Your task to perform on an android device: Empty the shopping cart on ebay. Image 0: 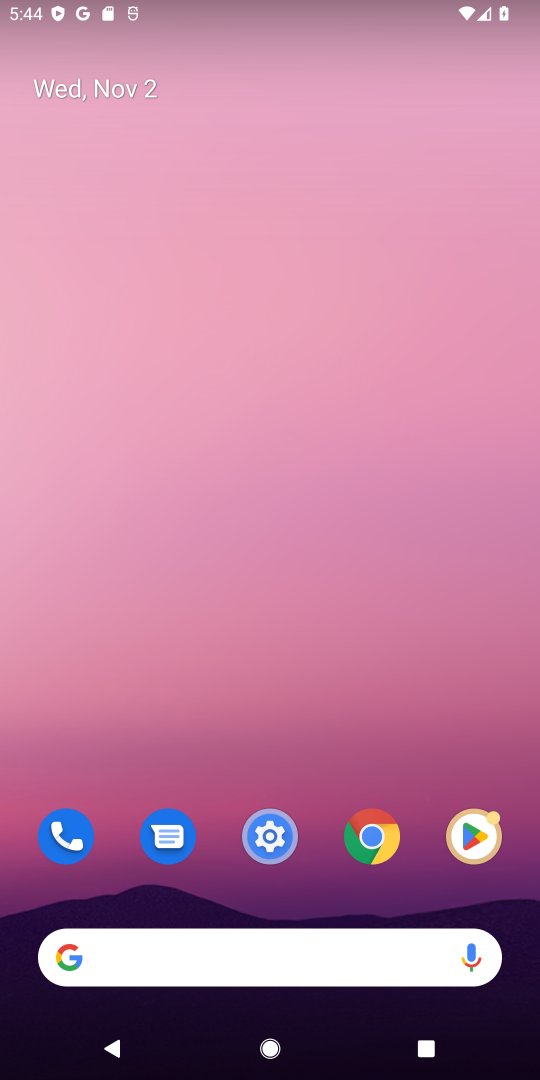
Step 0: drag from (142, 974) to (199, 268)
Your task to perform on an android device: Empty the shopping cart on ebay. Image 1: 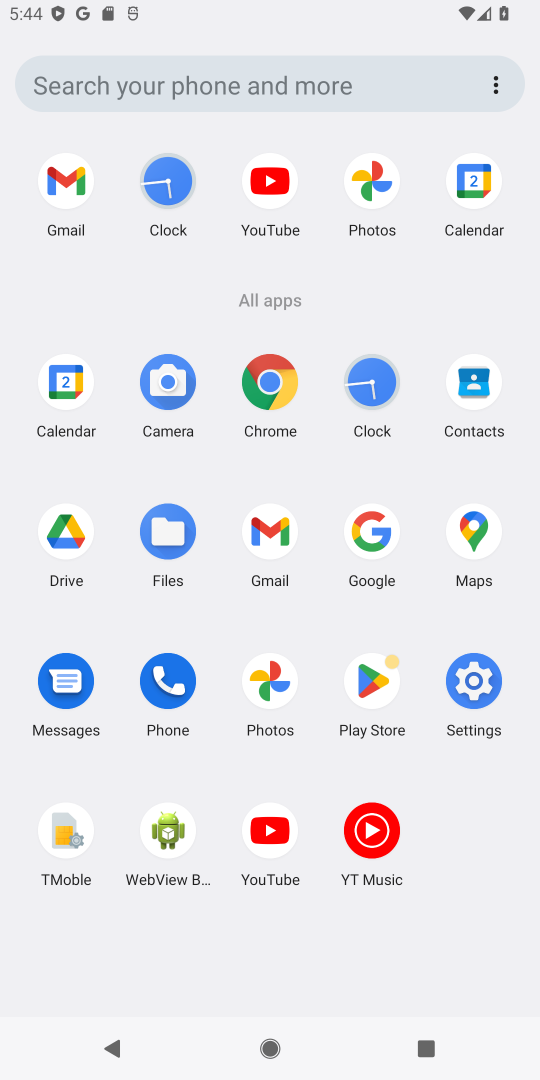
Step 1: click (363, 536)
Your task to perform on an android device: Empty the shopping cart on ebay. Image 2: 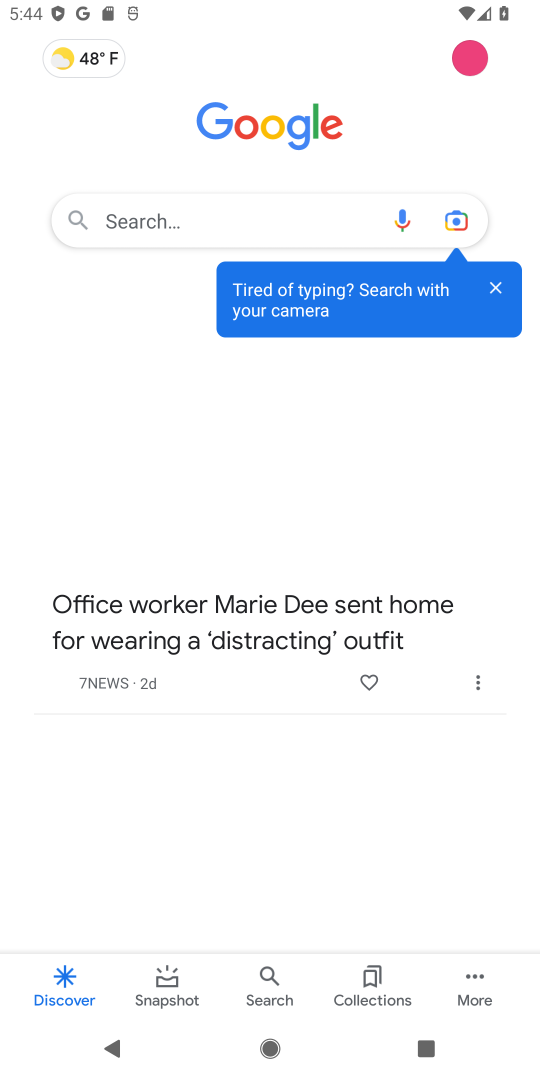
Step 2: click (181, 227)
Your task to perform on an android device: Empty the shopping cart on ebay. Image 3: 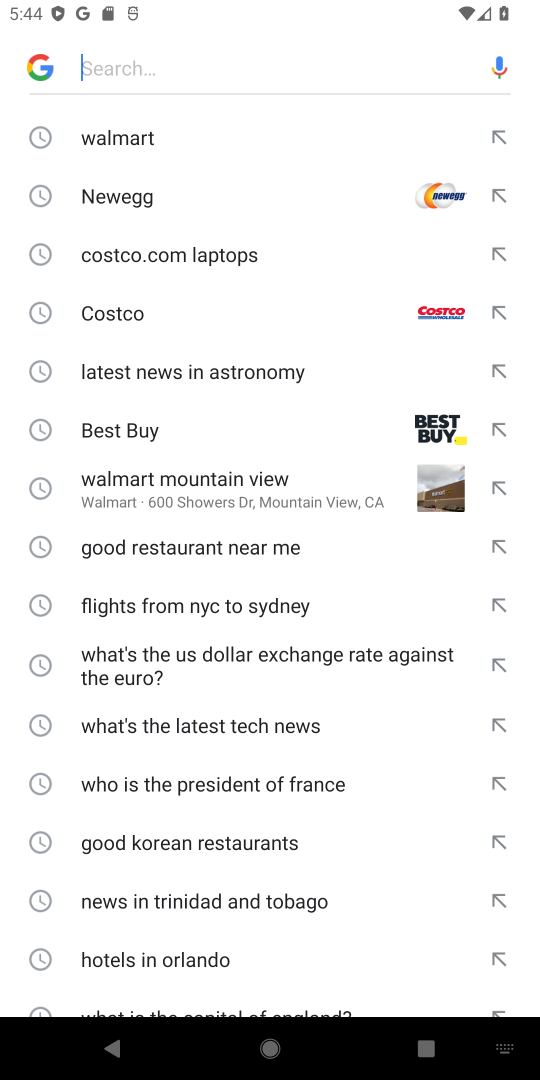
Step 3: click (132, 75)
Your task to perform on an android device: Empty the shopping cart on ebay. Image 4: 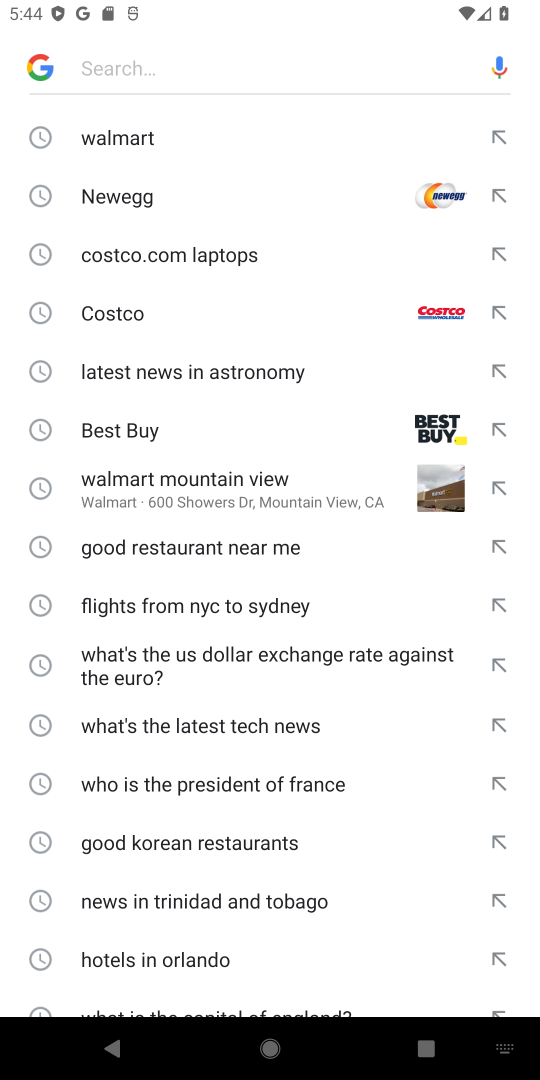
Step 4: type "ebay"
Your task to perform on an android device: Empty the shopping cart on ebay. Image 5: 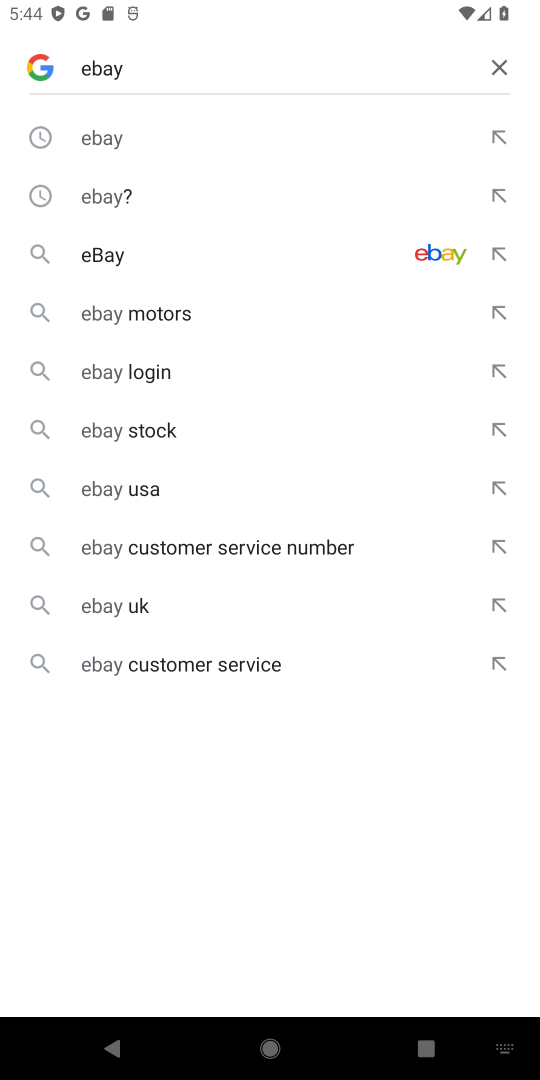
Step 5: click (110, 251)
Your task to perform on an android device: Empty the shopping cart on ebay. Image 6: 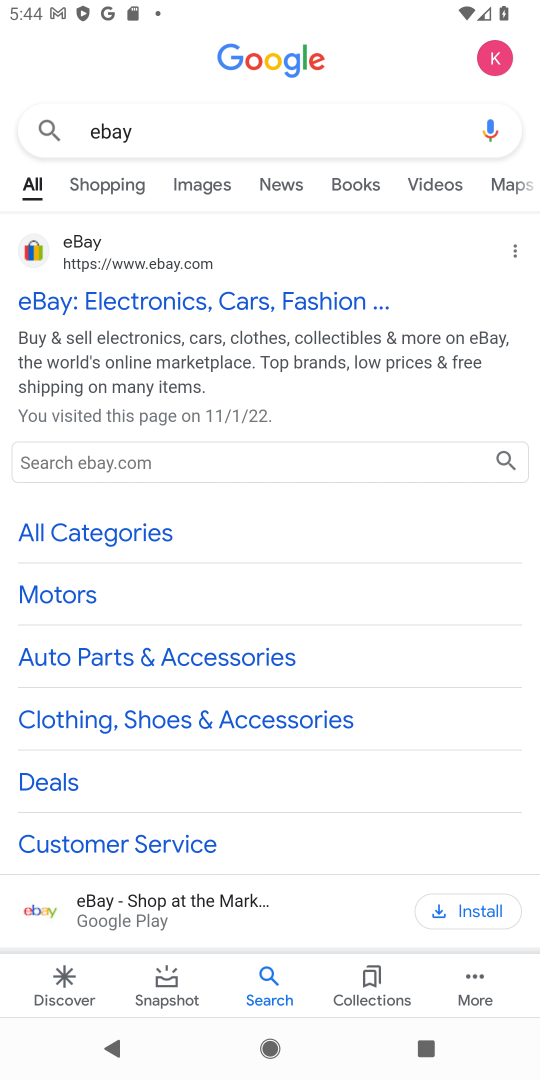
Step 6: click (143, 306)
Your task to perform on an android device: Empty the shopping cart on ebay. Image 7: 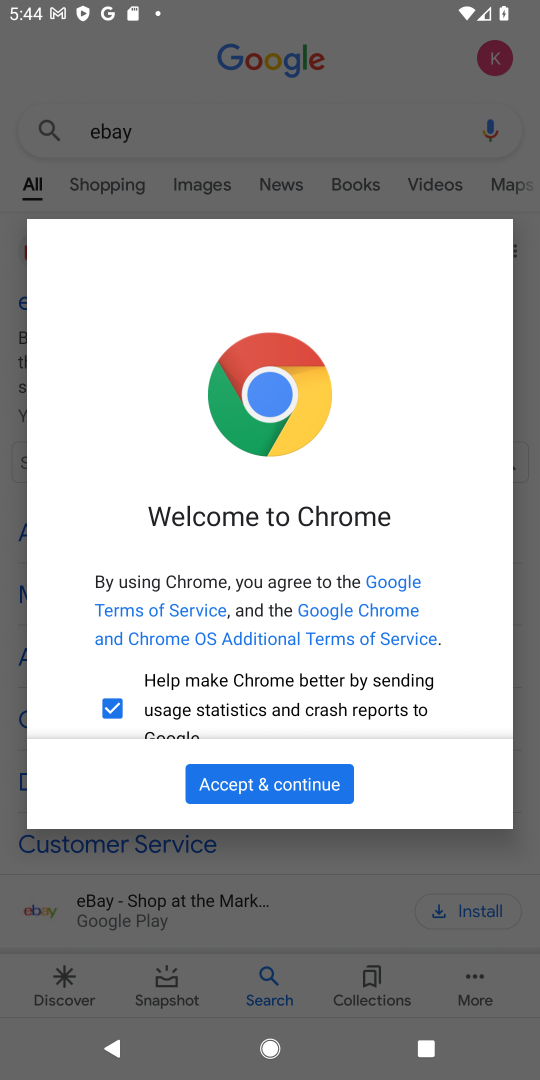
Step 7: click (239, 789)
Your task to perform on an android device: Empty the shopping cart on ebay. Image 8: 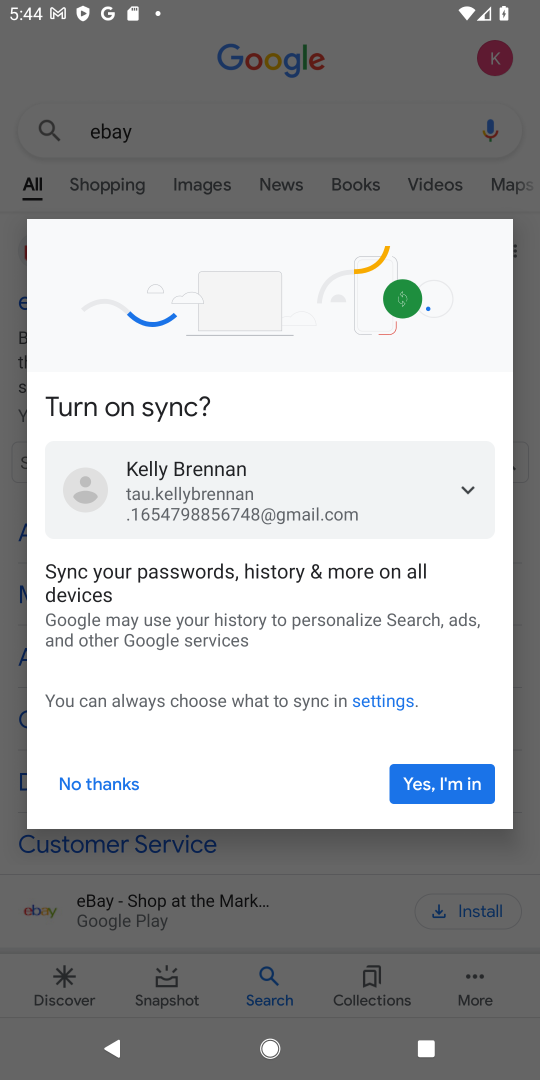
Step 8: click (446, 783)
Your task to perform on an android device: Empty the shopping cart on ebay. Image 9: 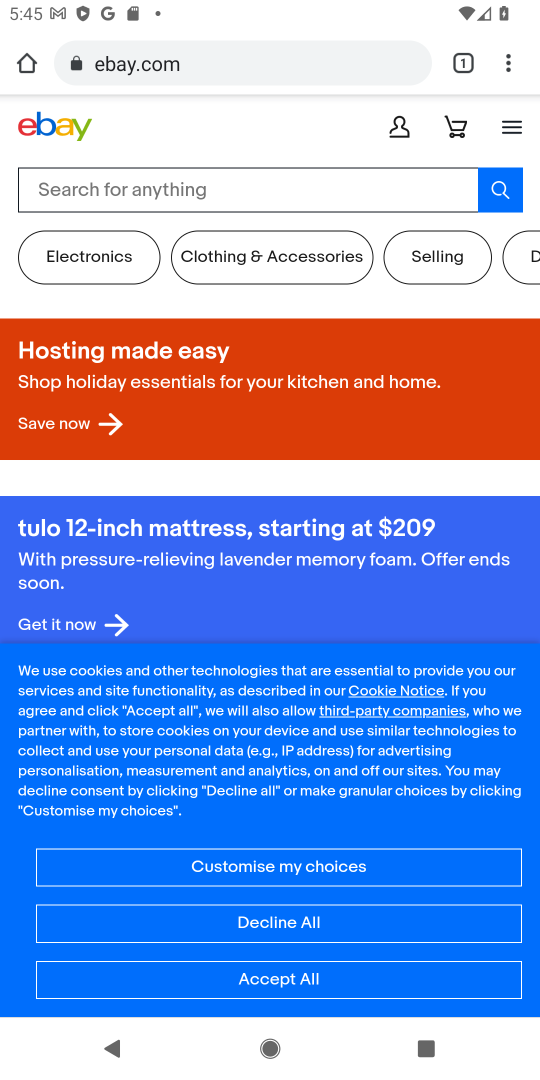
Step 9: click (456, 134)
Your task to perform on an android device: Empty the shopping cart on ebay. Image 10: 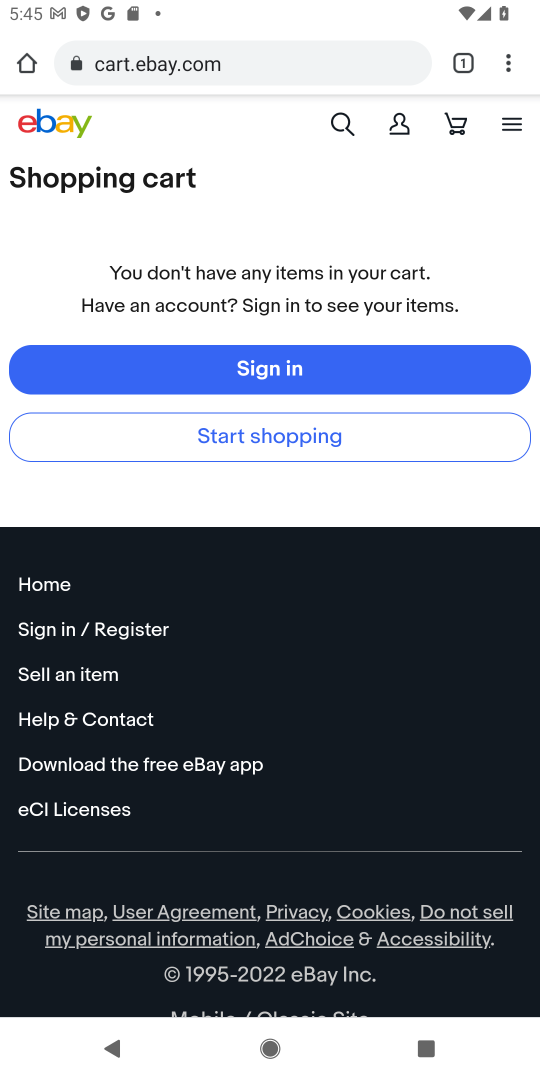
Step 10: task complete